Your task to perform on an android device: Open Google Maps Image 0: 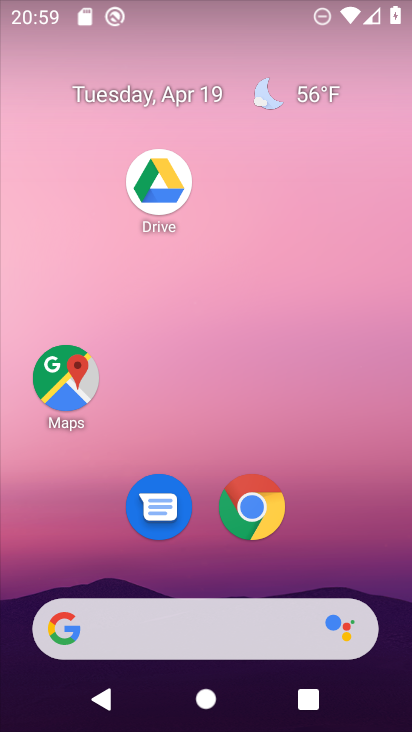
Step 0: click (58, 373)
Your task to perform on an android device: Open Google Maps Image 1: 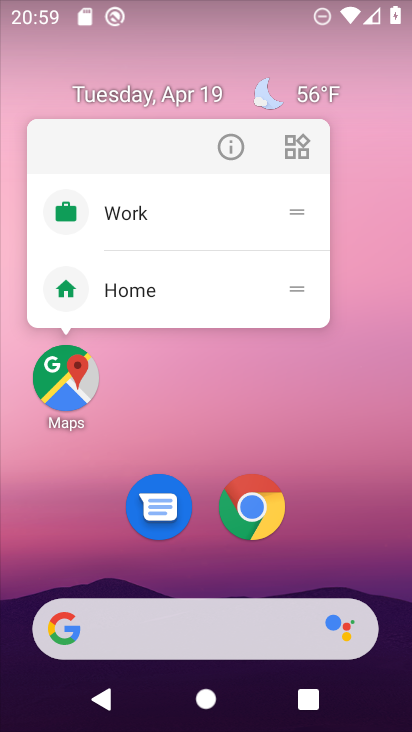
Step 1: click (58, 373)
Your task to perform on an android device: Open Google Maps Image 2: 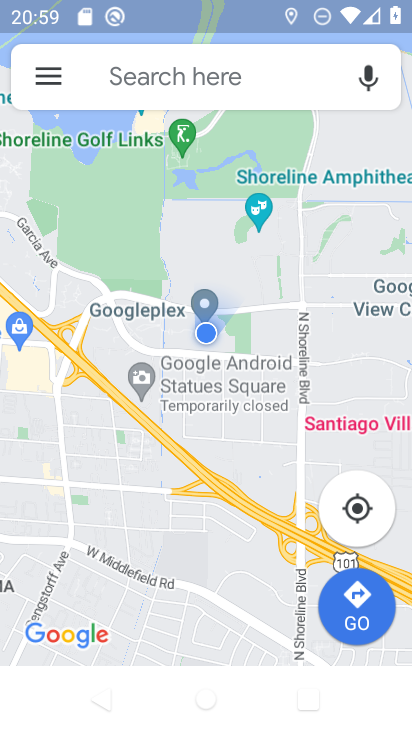
Step 2: task complete